Your task to perform on an android device: search for starred emails in the gmail app Image 0: 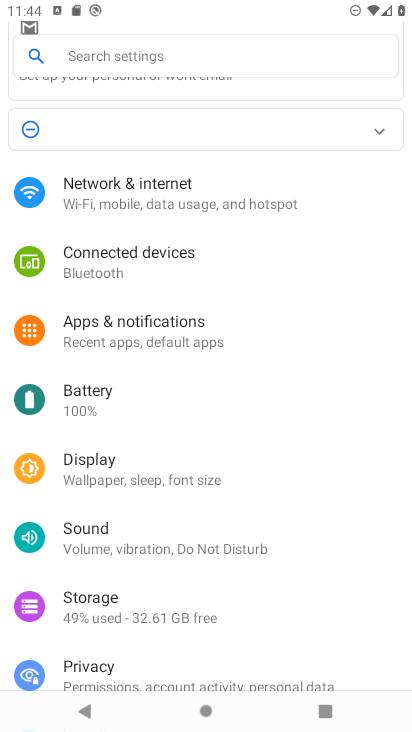
Step 0: press home button
Your task to perform on an android device: search for starred emails in the gmail app Image 1: 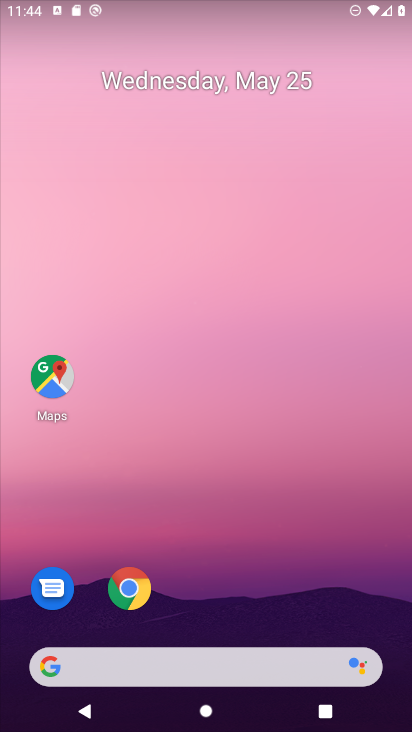
Step 1: drag from (18, 600) to (214, 97)
Your task to perform on an android device: search for starred emails in the gmail app Image 2: 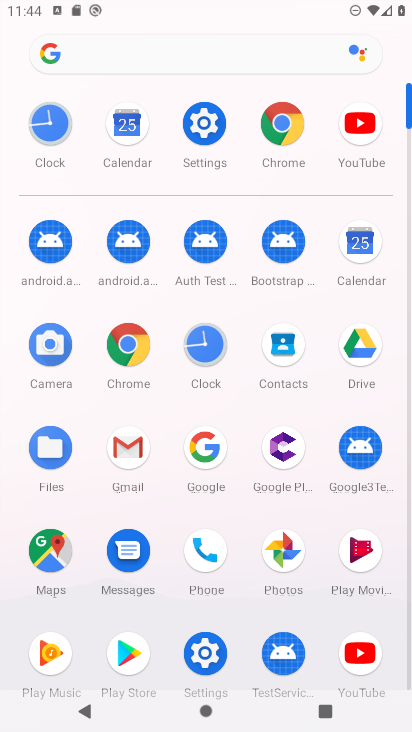
Step 2: click (135, 450)
Your task to perform on an android device: search for starred emails in the gmail app Image 3: 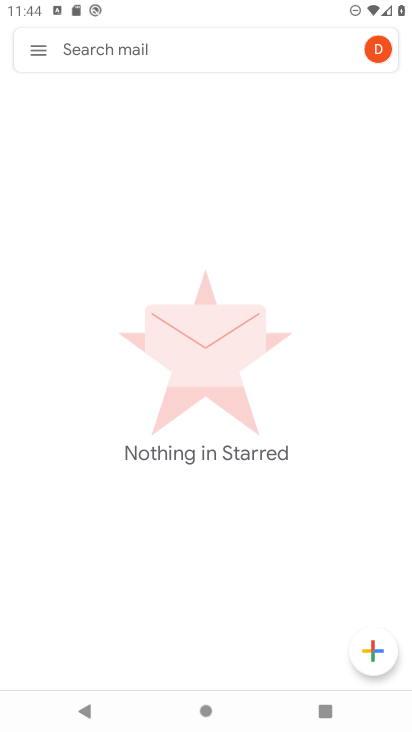
Step 3: click (41, 51)
Your task to perform on an android device: search for starred emails in the gmail app Image 4: 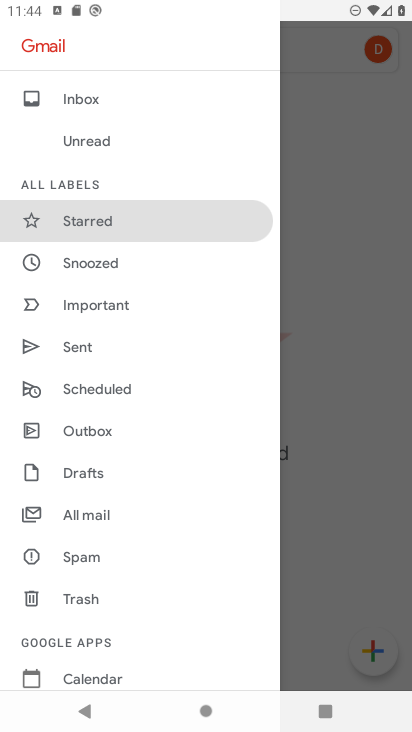
Step 4: click (83, 222)
Your task to perform on an android device: search for starred emails in the gmail app Image 5: 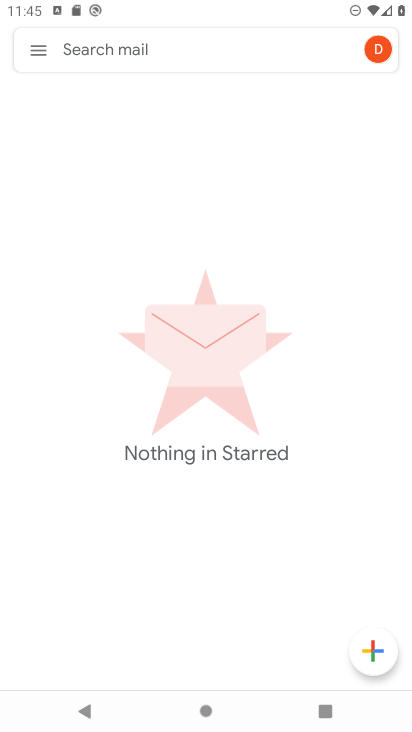
Step 5: task complete